Your task to perform on an android device: View the shopping cart on target. Image 0: 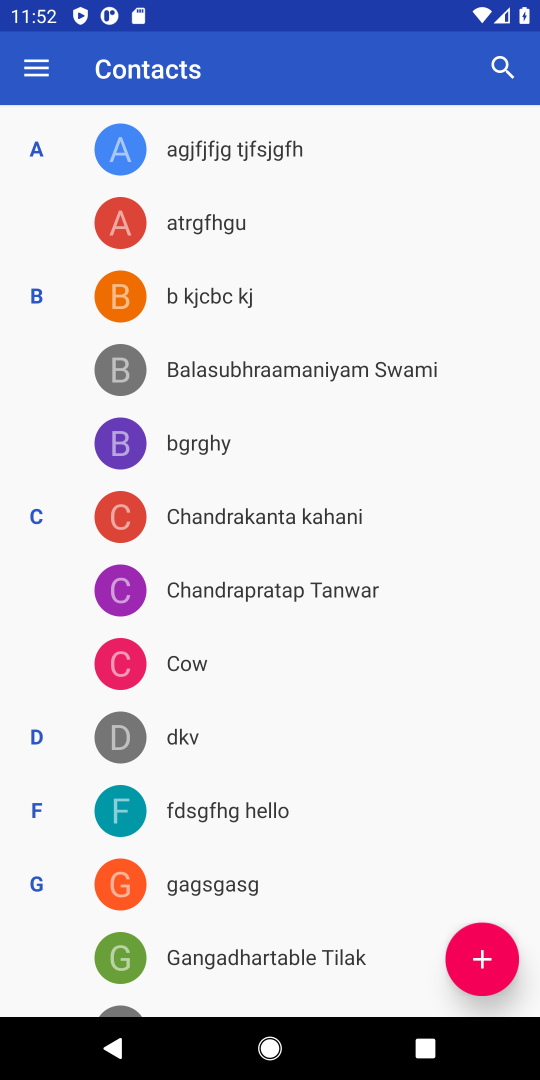
Step 0: press home button
Your task to perform on an android device: View the shopping cart on target. Image 1: 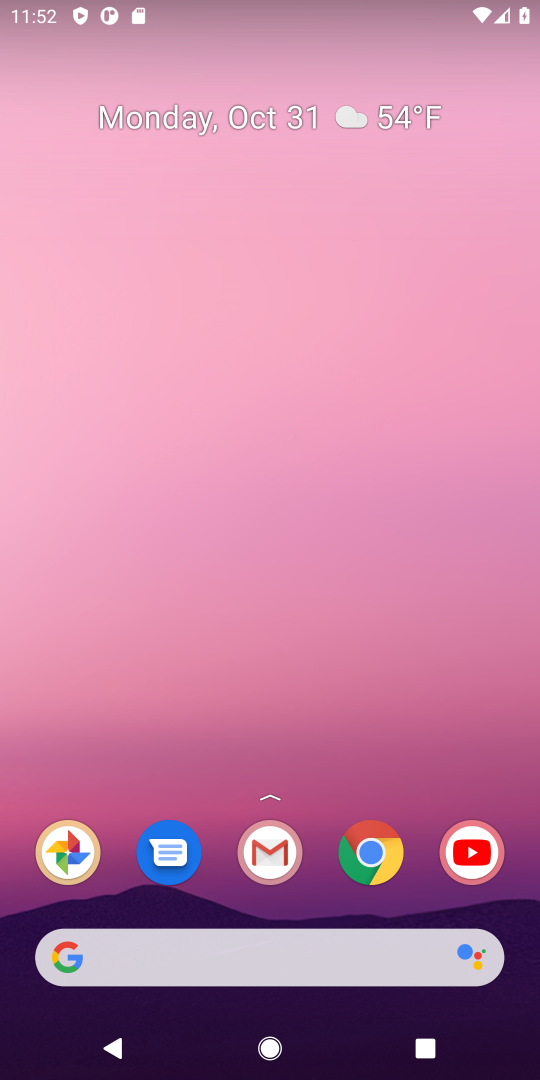
Step 1: click (376, 857)
Your task to perform on an android device: View the shopping cart on target. Image 2: 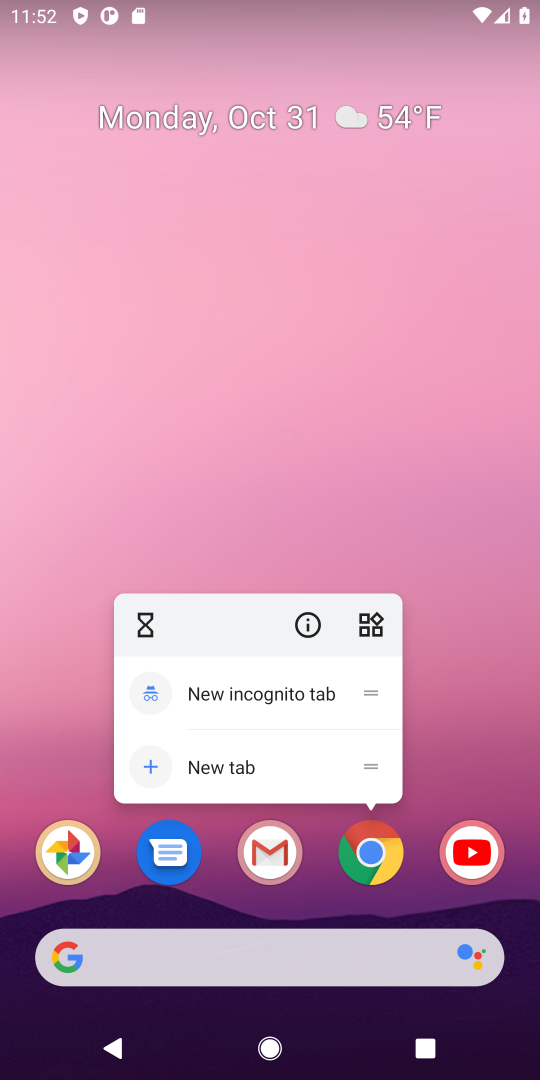
Step 2: click (369, 860)
Your task to perform on an android device: View the shopping cart on target. Image 3: 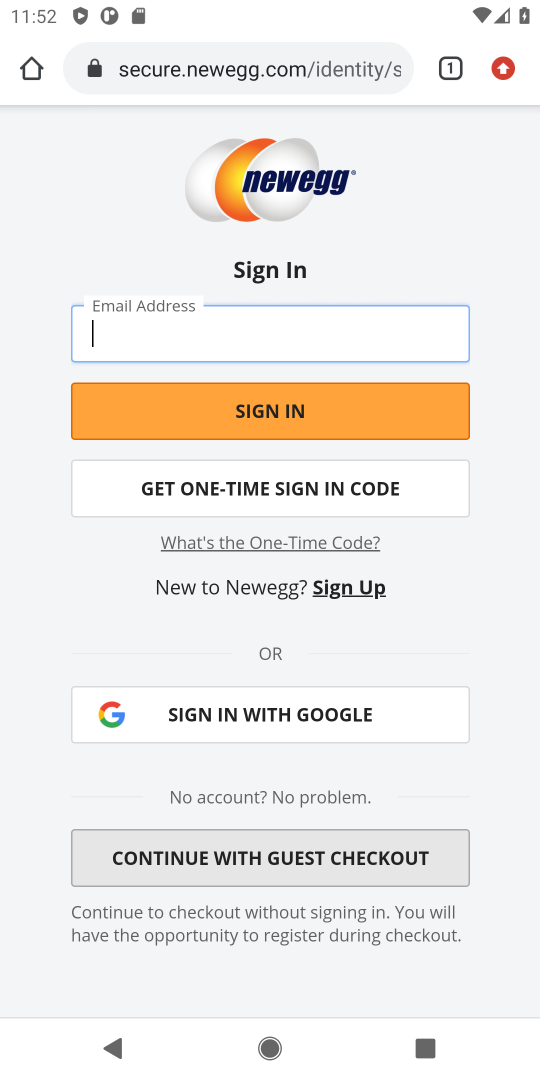
Step 3: click (305, 69)
Your task to perform on an android device: View the shopping cart on target. Image 4: 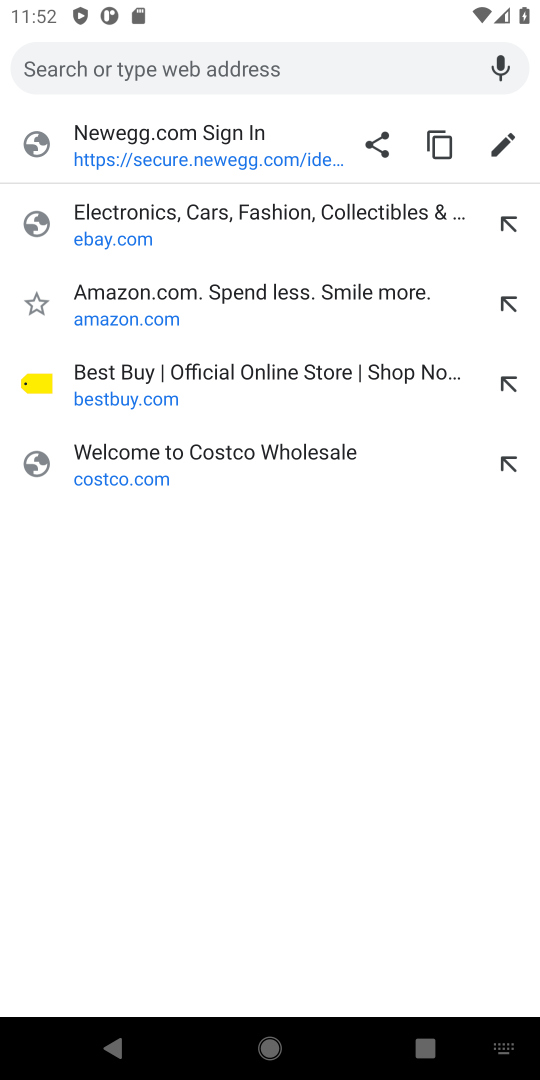
Step 4: type "target"
Your task to perform on an android device: View the shopping cart on target. Image 5: 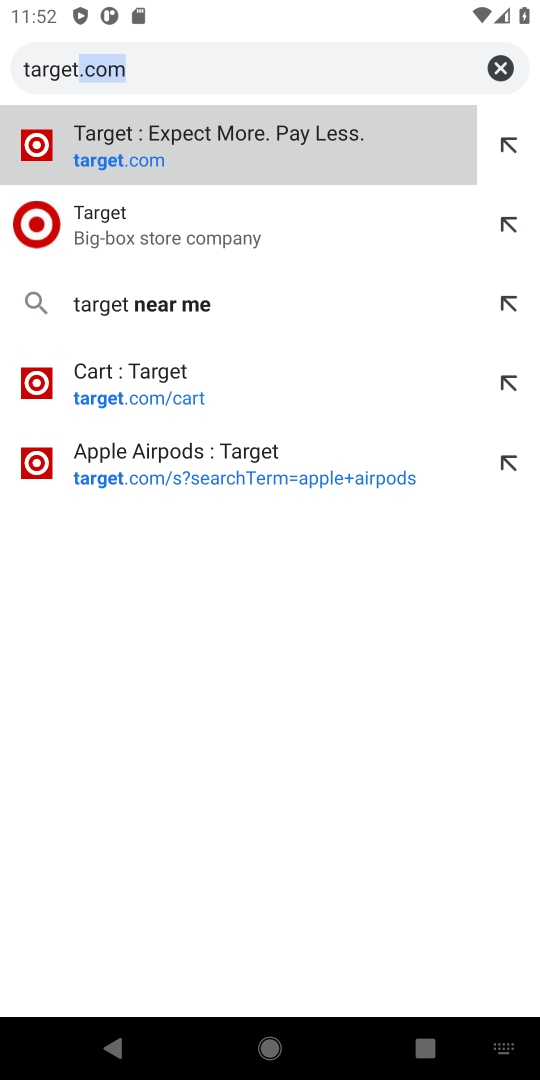
Step 5: type ""
Your task to perform on an android device: View the shopping cart on target. Image 6: 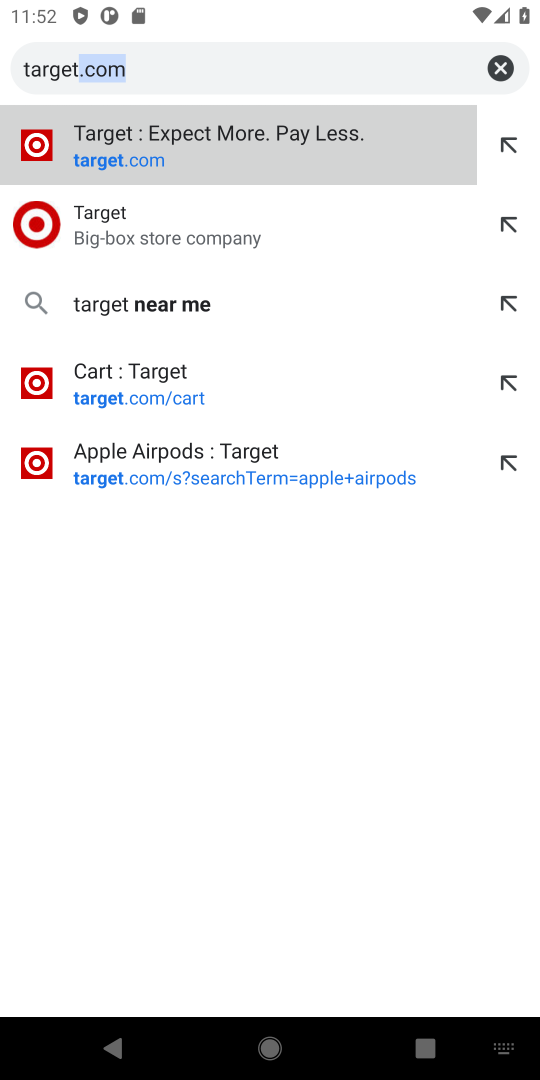
Step 6: press enter
Your task to perform on an android device: View the shopping cart on target. Image 7: 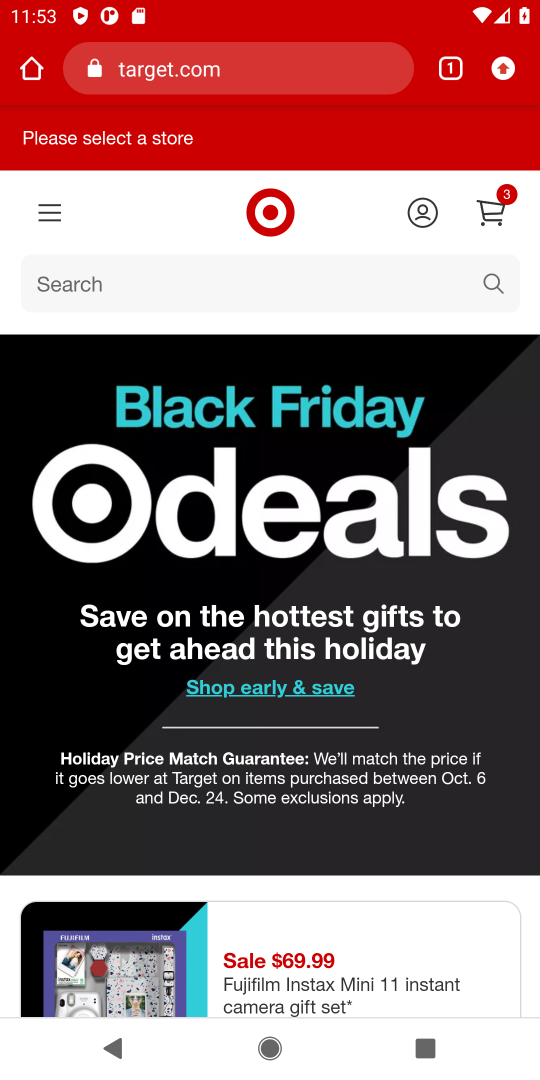
Step 7: click (491, 208)
Your task to perform on an android device: View the shopping cart on target. Image 8: 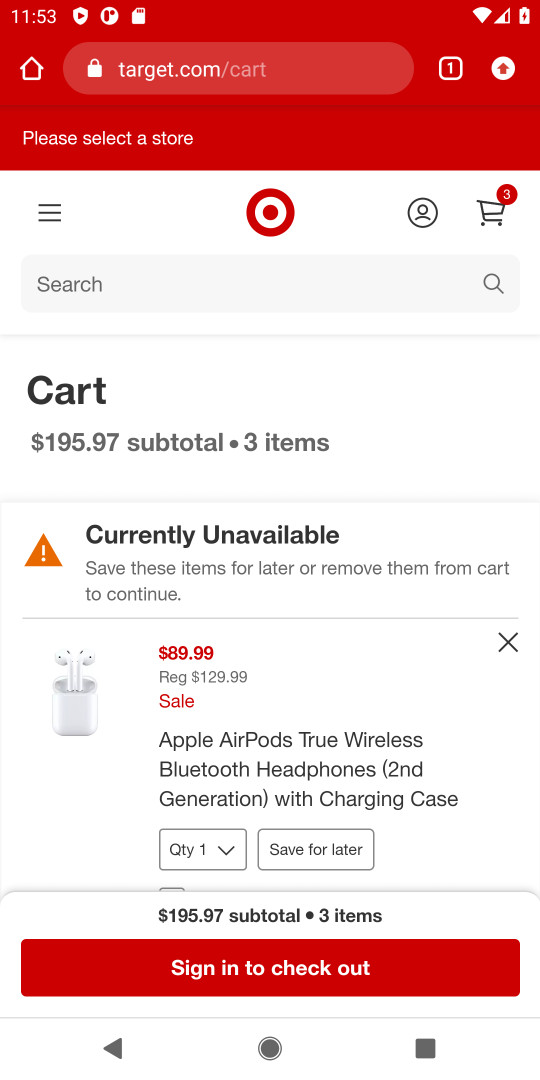
Step 8: drag from (457, 786) to (445, 509)
Your task to perform on an android device: View the shopping cart on target. Image 9: 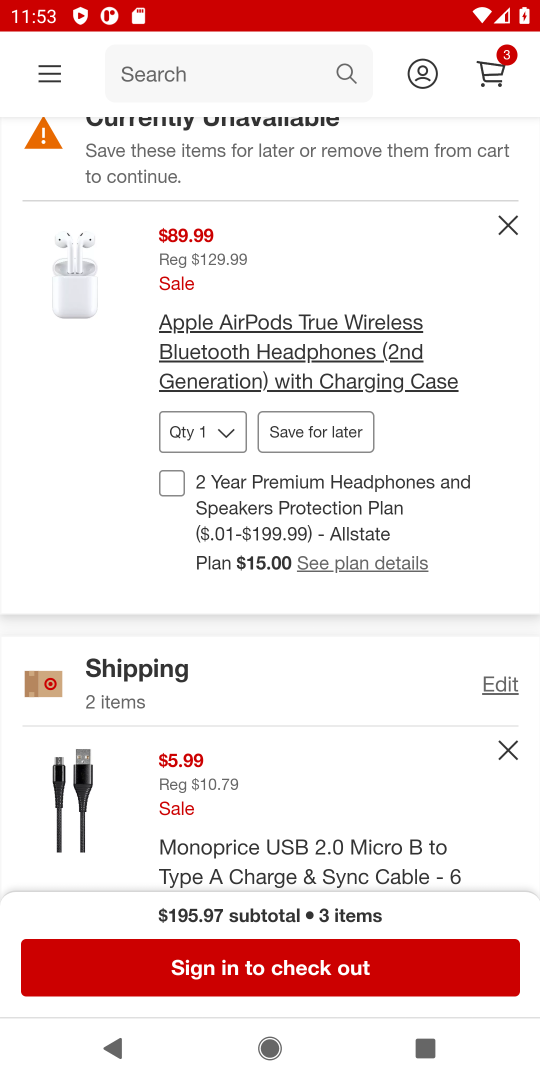
Step 9: click (506, 227)
Your task to perform on an android device: View the shopping cart on target. Image 10: 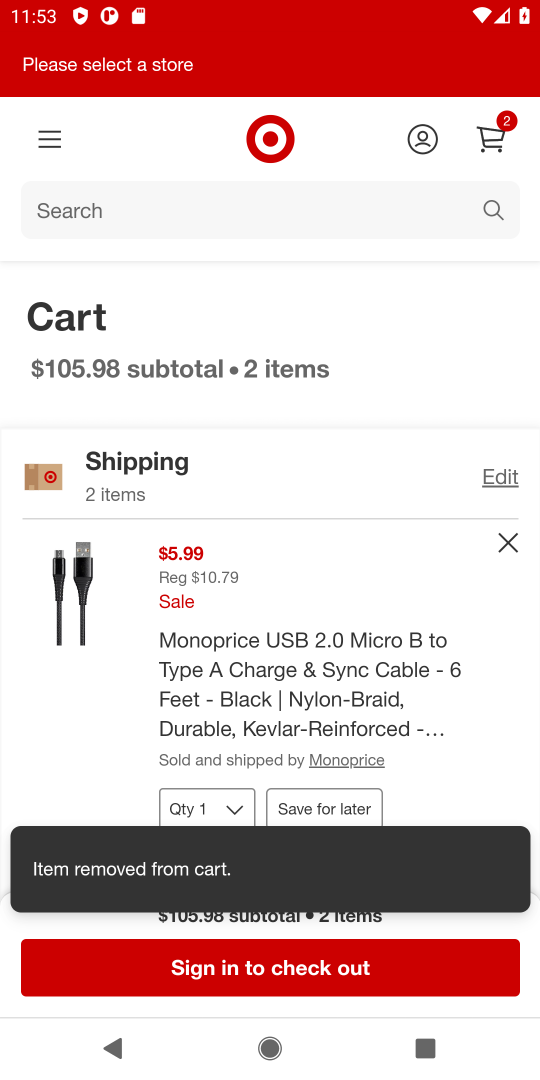
Step 10: click (513, 531)
Your task to perform on an android device: View the shopping cart on target. Image 11: 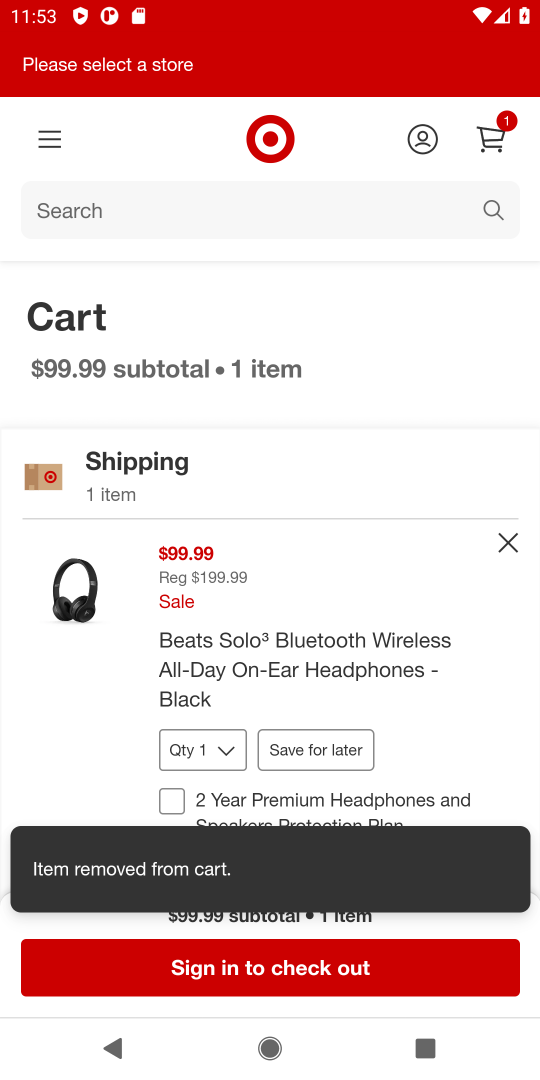
Step 11: task complete